Your task to perform on an android device: When is my next meeting? Image 0: 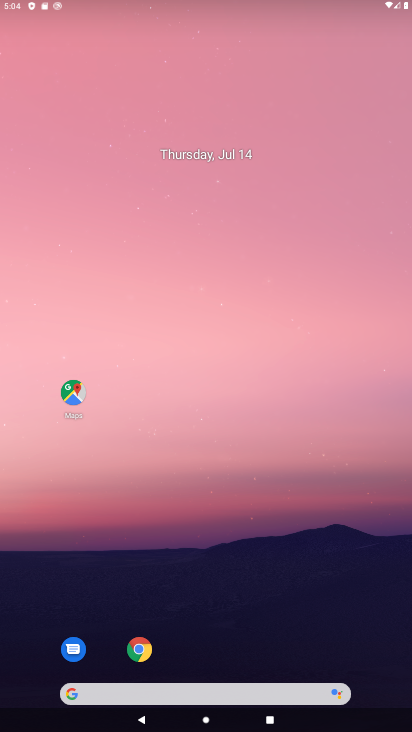
Step 0: drag from (267, 630) to (338, 13)
Your task to perform on an android device: When is my next meeting? Image 1: 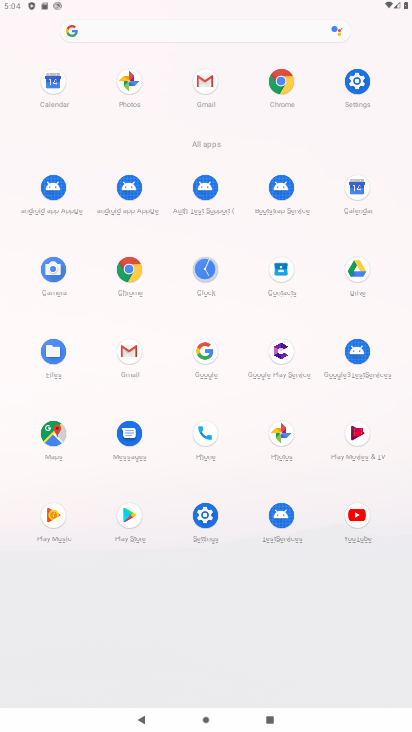
Step 1: click (359, 193)
Your task to perform on an android device: When is my next meeting? Image 2: 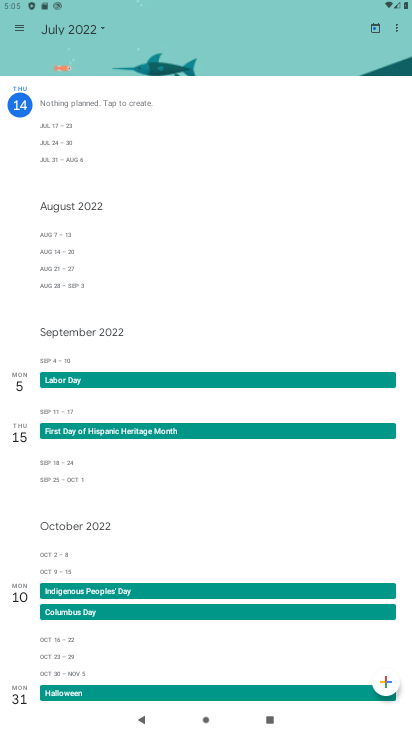
Step 2: task complete